Your task to perform on an android device: Go to network settings Image 0: 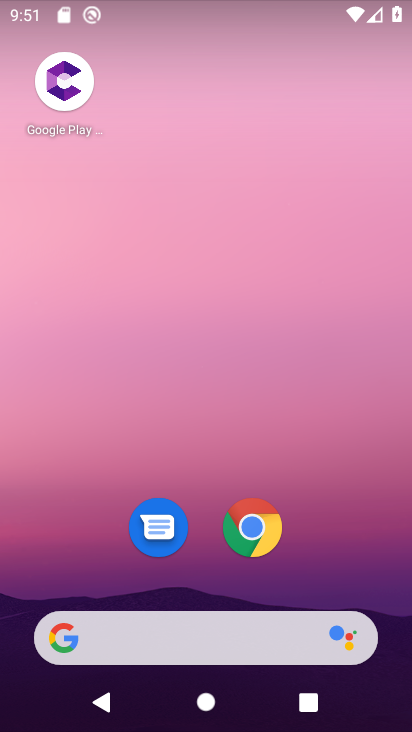
Step 0: drag from (335, 571) to (300, 3)
Your task to perform on an android device: Go to network settings Image 1: 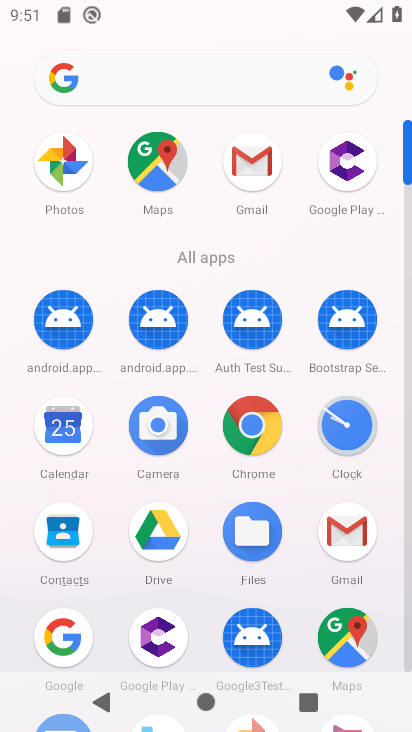
Step 1: drag from (193, 274) to (225, 0)
Your task to perform on an android device: Go to network settings Image 2: 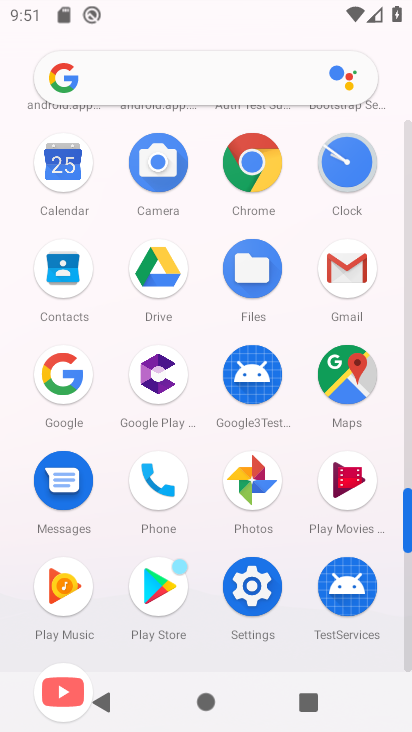
Step 2: click (252, 589)
Your task to perform on an android device: Go to network settings Image 3: 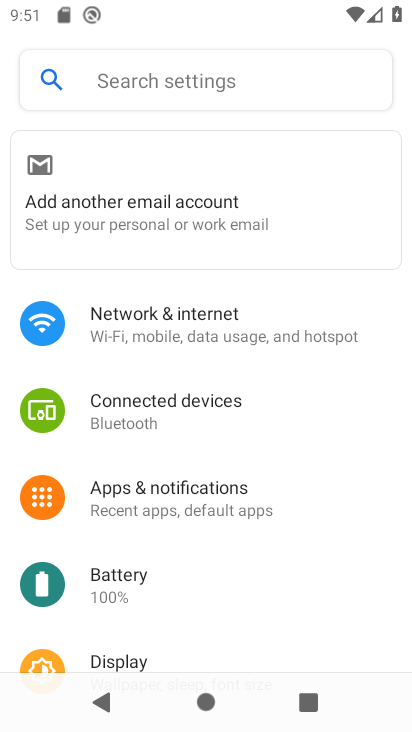
Step 3: click (188, 335)
Your task to perform on an android device: Go to network settings Image 4: 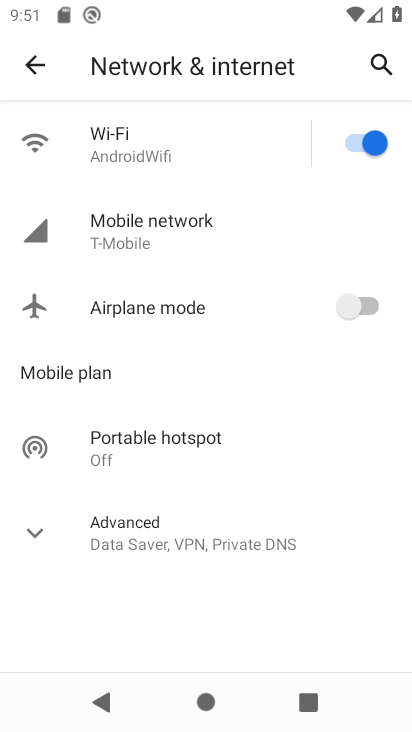
Step 4: task complete